Your task to perform on an android device: Show me popular videos on Youtube Image 0: 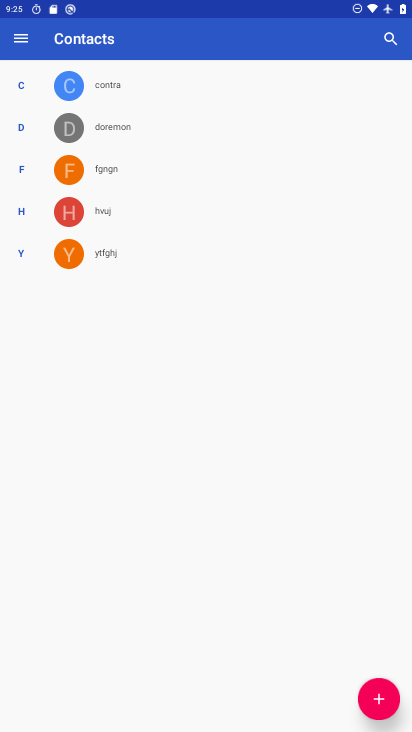
Step 0: press home button
Your task to perform on an android device: Show me popular videos on Youtube Image 1: 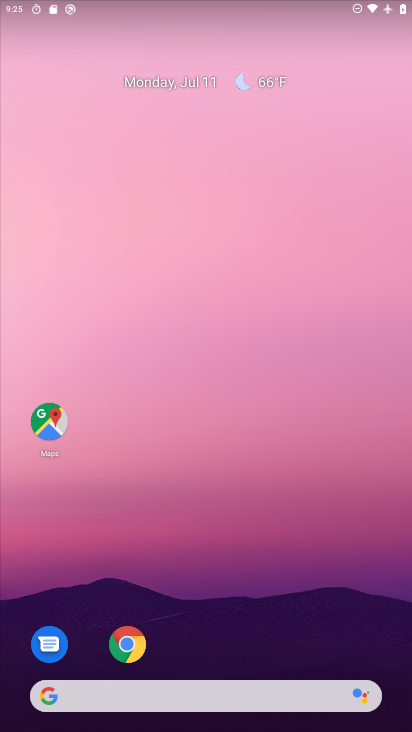
Step 1: drag from (325, 594) to (327, 72)
Your task to perform on an android device: Show me popular videos on Youtube Image 2: 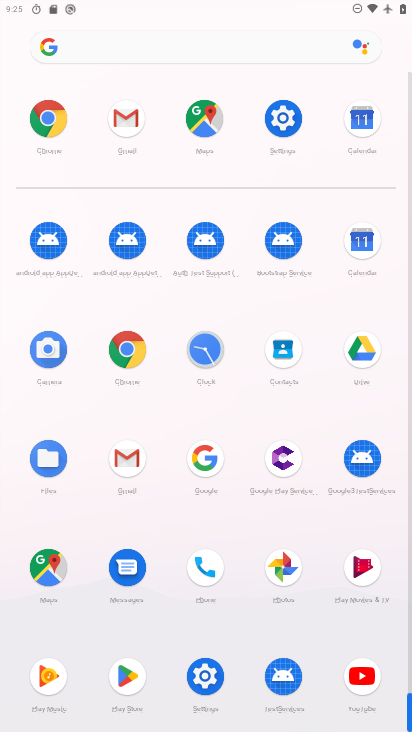
Step 2: click (369, 673)
Your task to perform on an android device: Show me popular videos on Youtube Image 3: 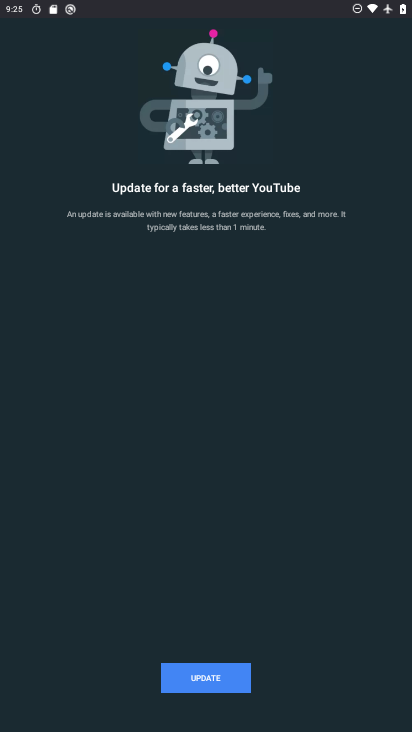
Step 3: task complete